Your task to perform on an android device: Open the web browser Image 0: 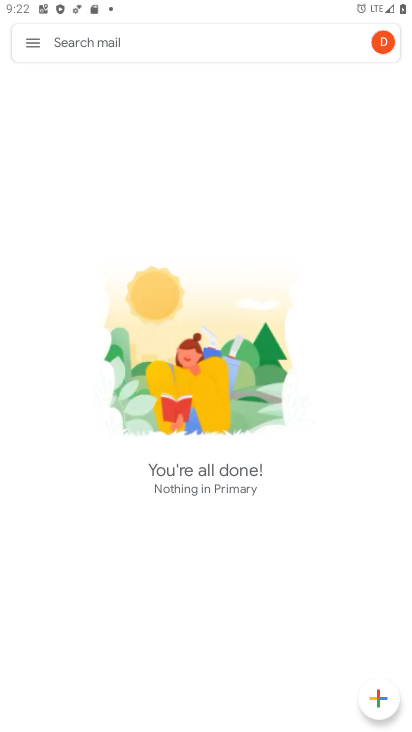
Step 0: press home button
Your task to perform on an android device: Open the web browser Image 1: 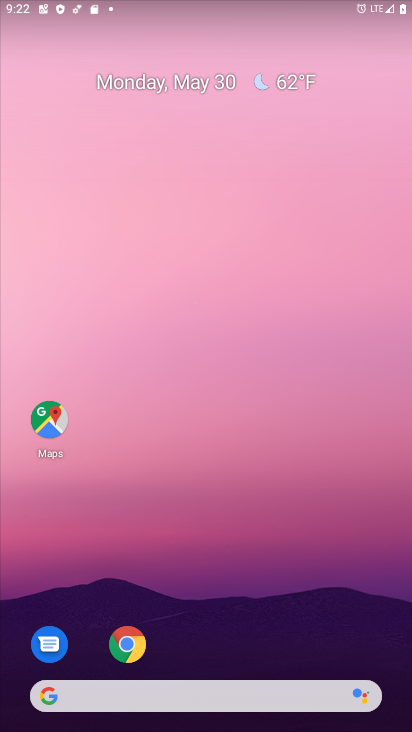
Step 1: click (133, 646)
Your task to perform on an android device: Open the web browser Image 2: 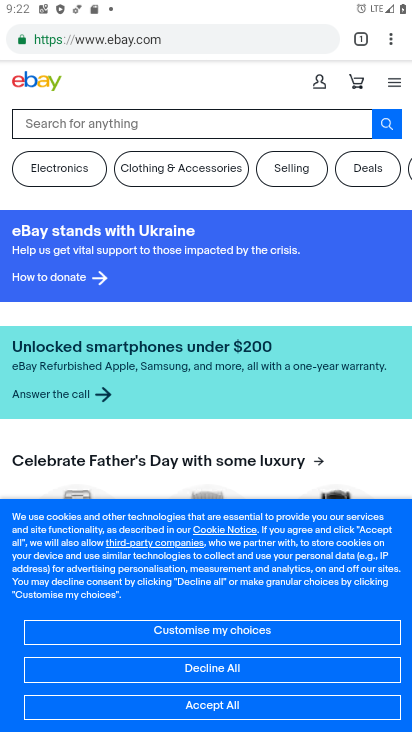
Step 2: click (256, 40)
Your task to perform on an android device: Open the web browser Image 3: 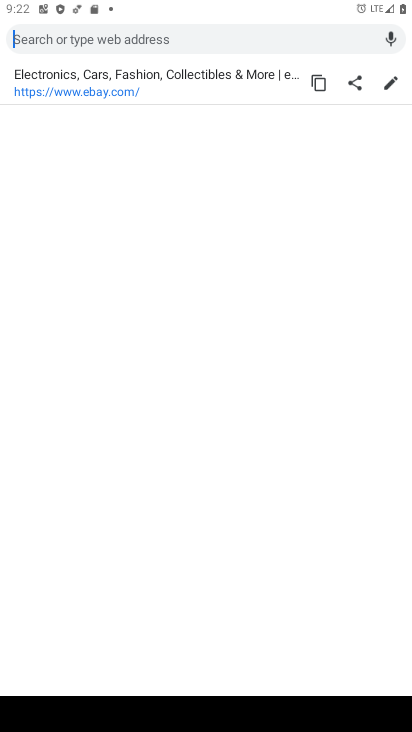
Step 3: task complete